Your task to perform on an android device: Open the calendar app, open the side menu, and click the "Day" option Image 0: 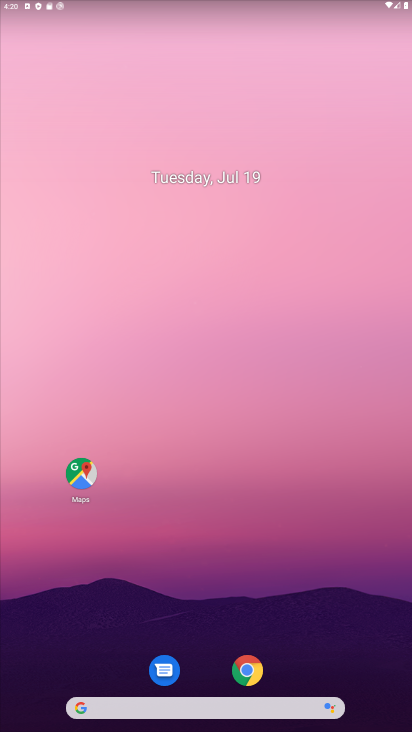
Step 0: drag from (279, 690) to (292, 169)
Your task to perform on an android device: Open the calendar app, open the side menu, and click the "Day" option Image 1: 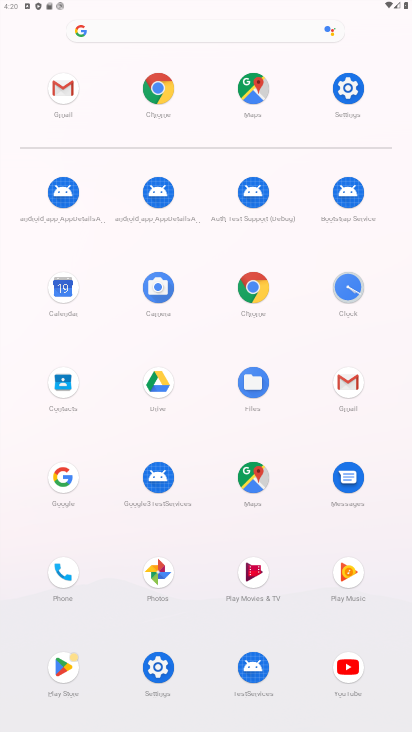
Step 1: click (63, 288)
Your task to perform on an android device: Open the calendar app, open the side menu, and click the "Day" option Image 2: 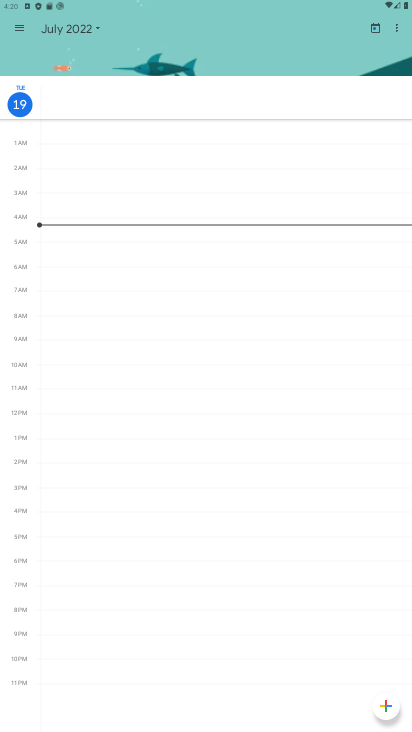
Step 2: click (94, 27)
Your task to perform on an android device: Open the calendar app, open the side menu, and click the "Day" option Image 3: 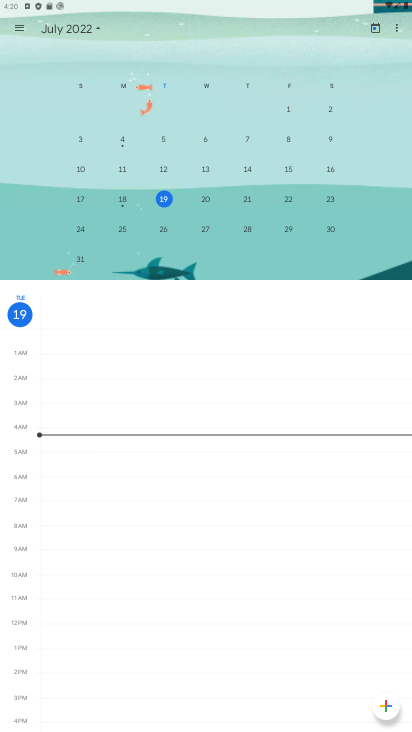
Step 3: click (15, 25)
Your task to perform on an android device: Open the calendar app, open the side menu, and click the "Day" option Image 4: 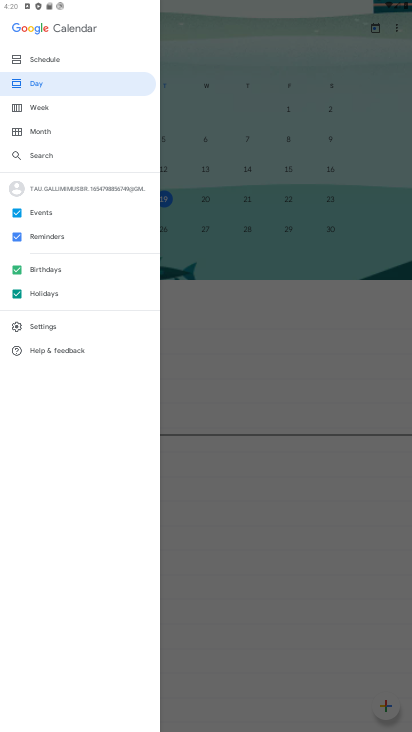
Step 4: click (53, 82)
Your task to perform on an android device: Open the calendar app, open the side menu, and click the "Day" option Image 5: 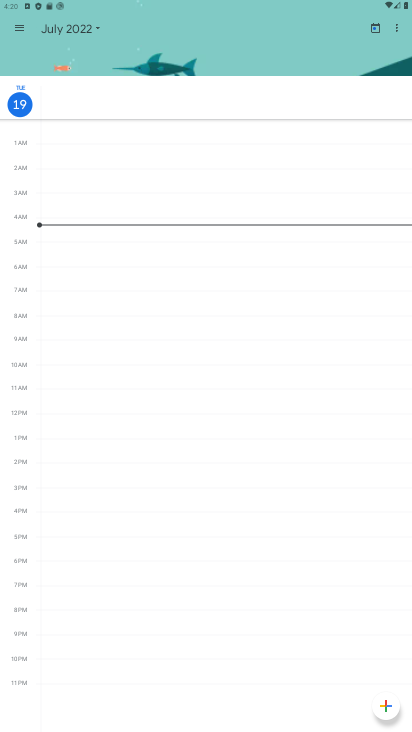
Step 5: task complete